Your task to perform on an android device: manage bookmarks in the chrome app Image 0: 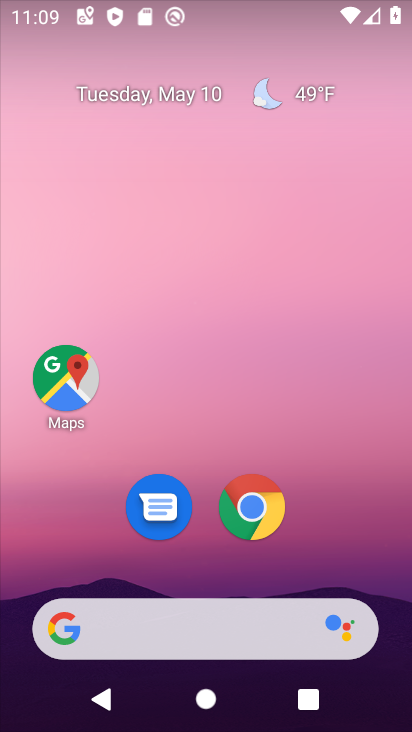
Step 0: click (254, 508)
Your task to perform on an android device: manage bookmarks in the chrome app Image 1: 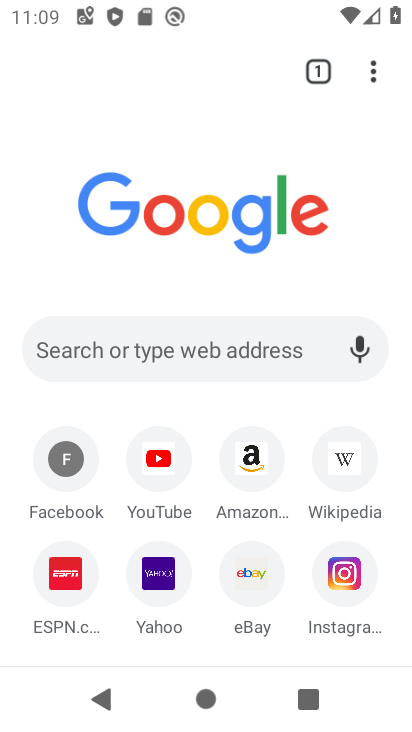
Step 1: click (364, 72)
Your task to perform on an android device: manage bookmarks in the chrome app Image 2: 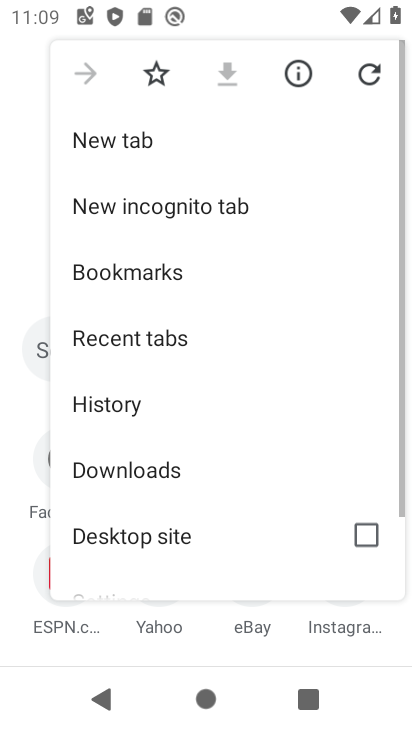
Step 2: drag from (187, 497) to (205, 148)
Your task to perform on an android device: manage bookmarks in the chrome app Image 3: 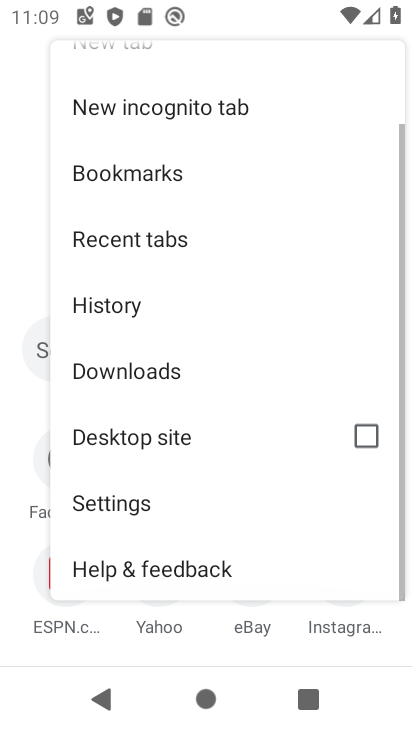
Step 3: click (114, 167)
Your task to perform on an android device: manage bookmarks in the chrome app Image 4: 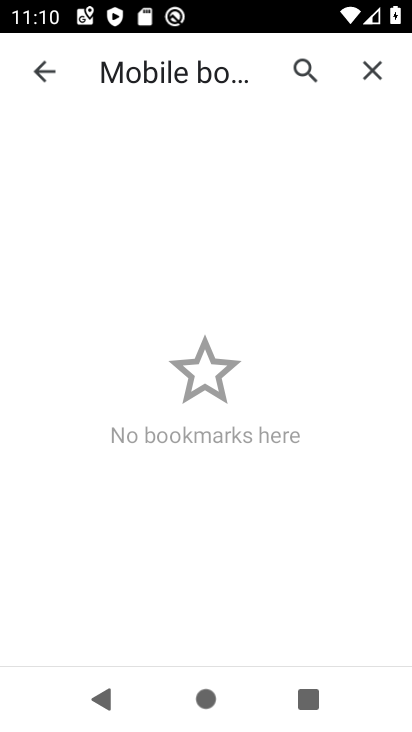
Step 4: task complete